Your task to perform on an android device: Open location settings Image 0: 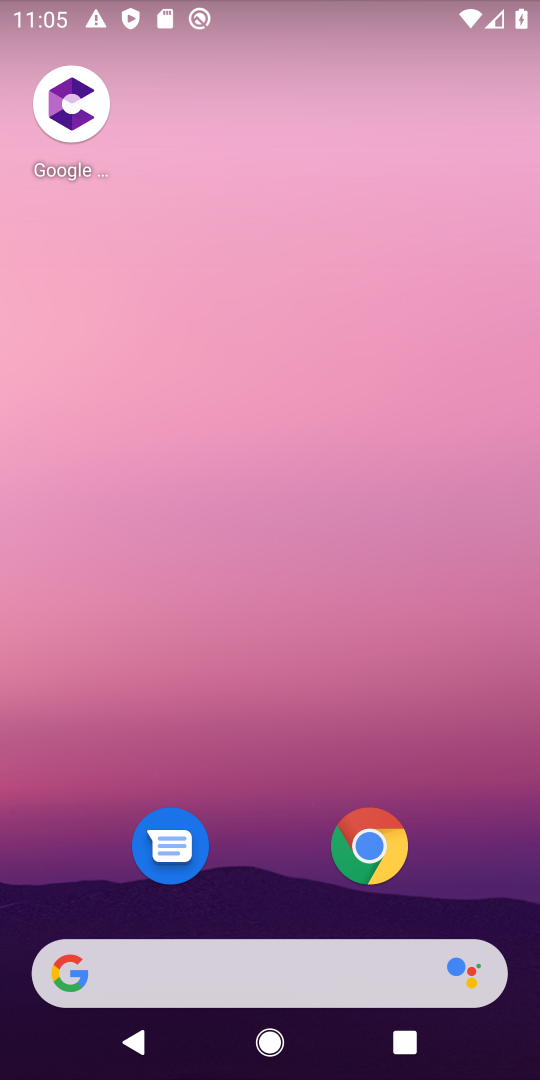
Step 0: drag from (277, 831) to (143, 30)
Your task to perform on an android device: Open location settings Image 1: 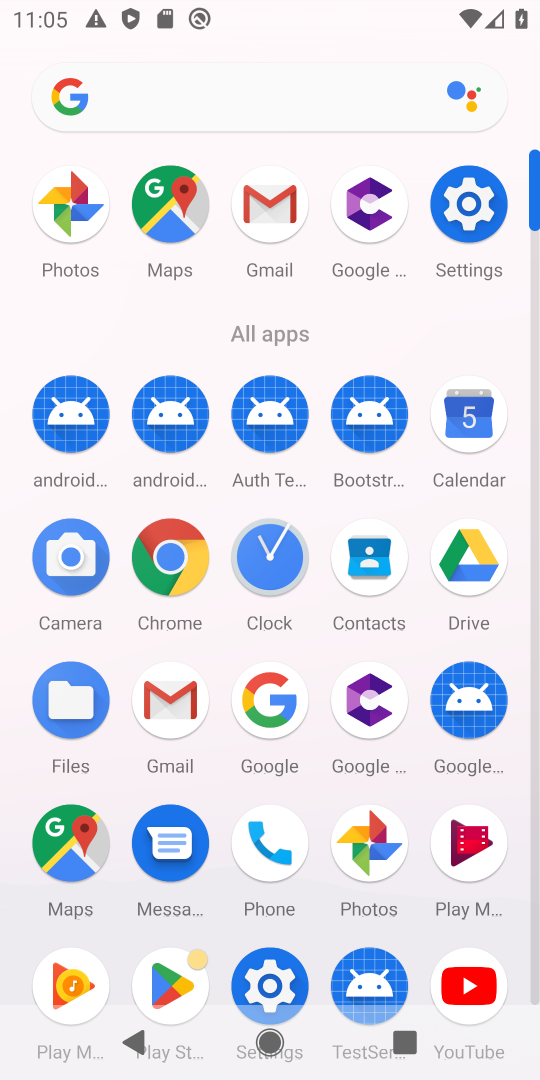
Step 1: click (464, 211)
Your task to perform on an android device: Open location settings Image 2: 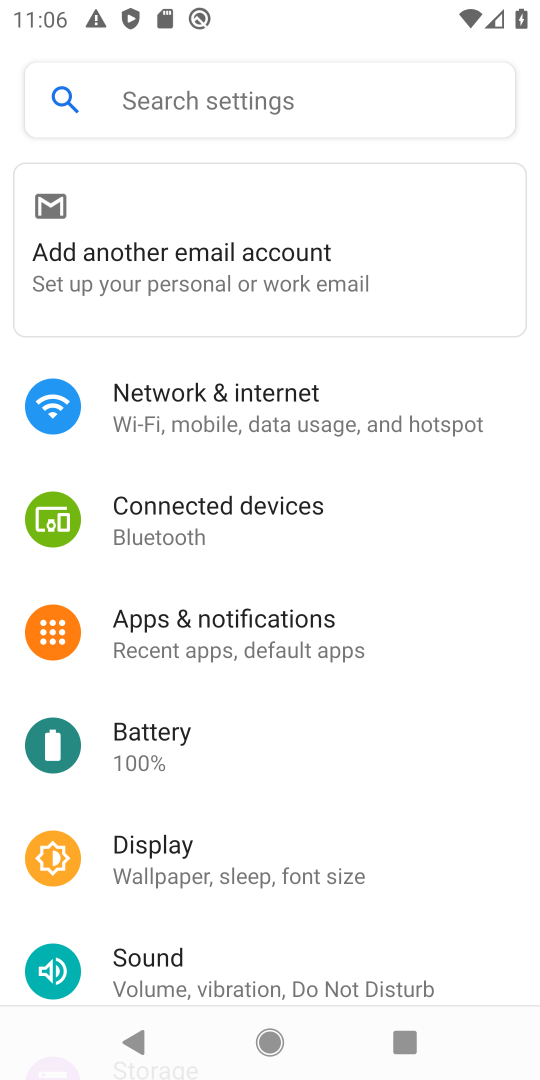
Step 2: drag from (294, 936) to (246, 84)
Your task to perform on an android device: Open location settings Image 3: 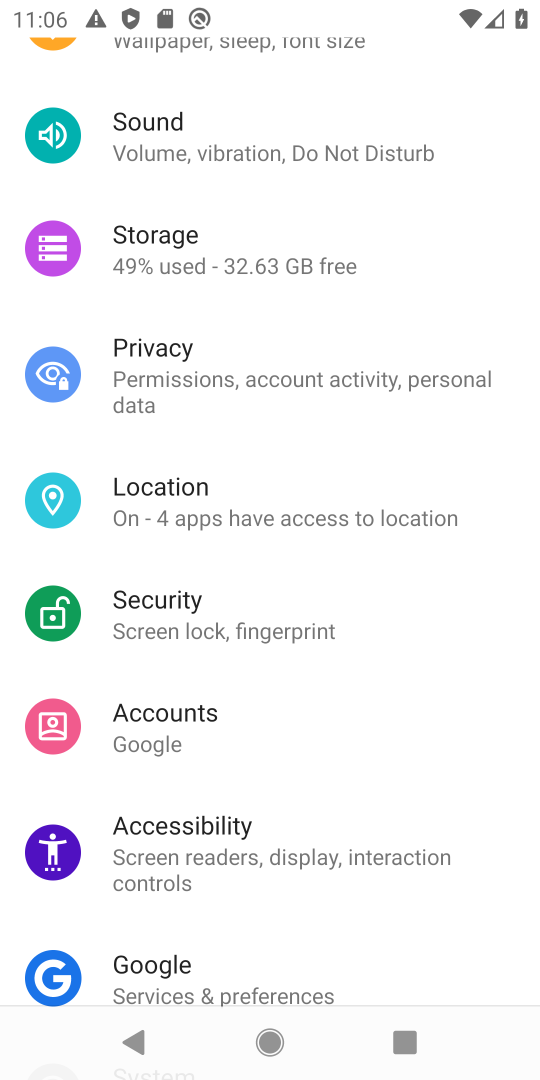
Step 3: click (284, 497)
Your task to perform on an android device: Open location settings Image 4: 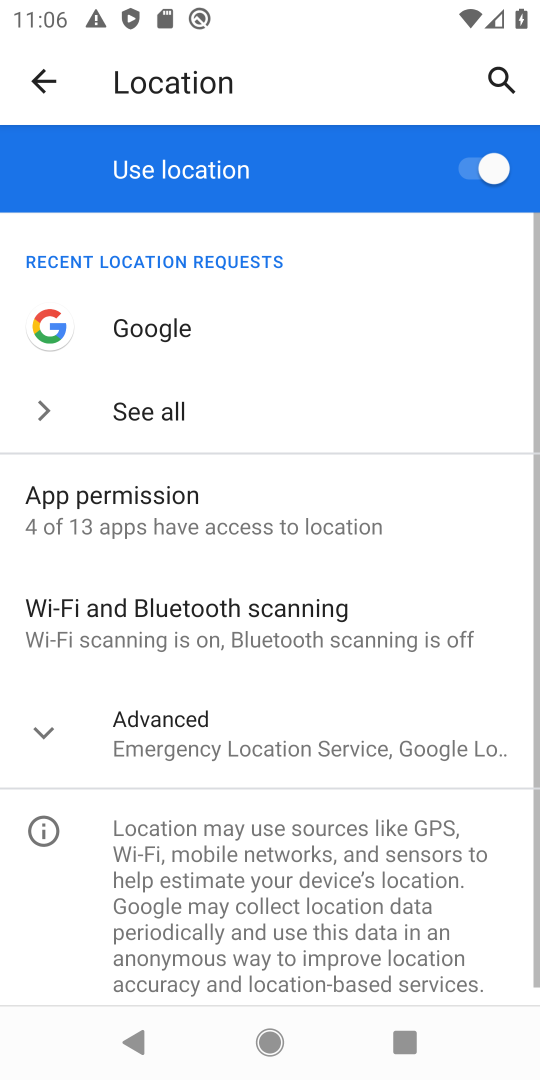
Step 4: task complete